Your task to perform on an android device: Open Youtube and go to "Your channel" Image 0: 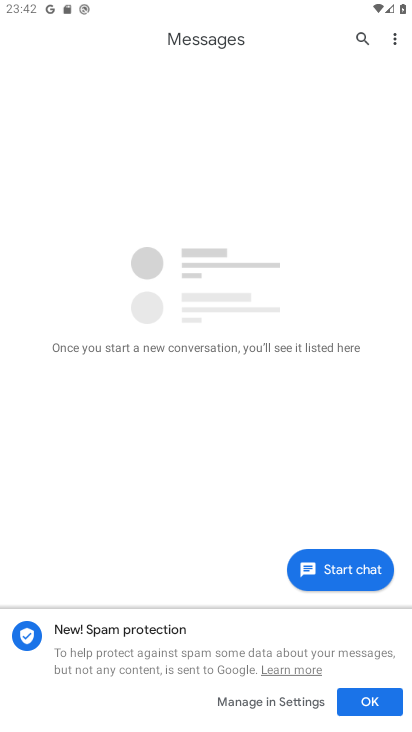
Step 0: press home button
Your task to perform on an android device: Open Youtube and go to "Your channel" Image 1: 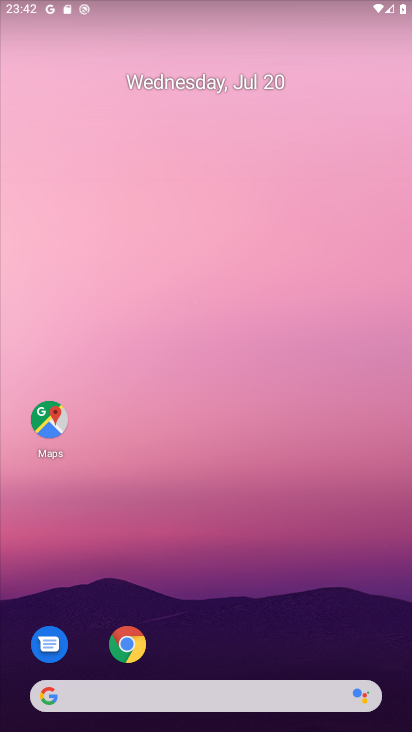
Step 1: drag from (194, 705) to (202, 201)
Your task to perform on an android device: Open Youtube and go to "Your channel" Image 2: 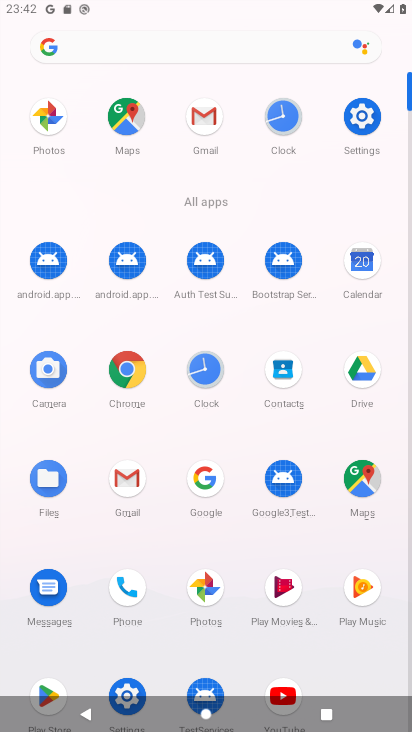
Step 2: click (282, 680)
Your task to perform on an android device: Open Youtube and go to "Your channel" Image 3: 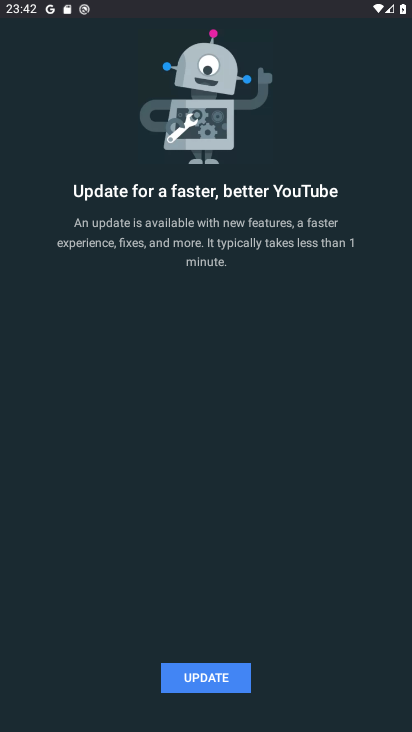
Step 3: click (239, 672)
Your task to perform on an android device: Open Youtube and go to "Your channel" Image 4: 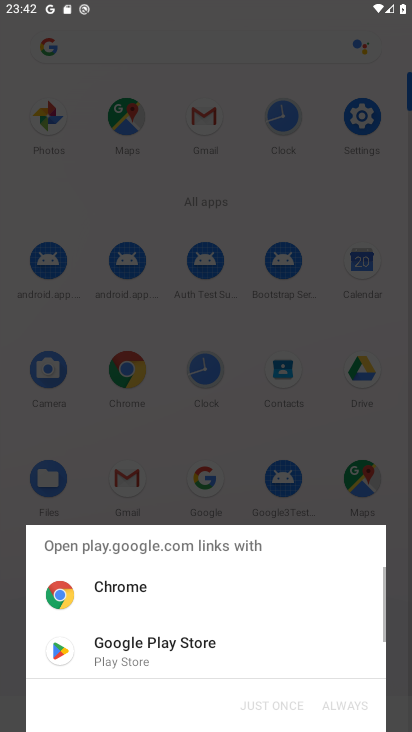
Step 4: click (213, 638)
Your task to perform on an android device: Open Youtube and go to "Your channel" Image 5: 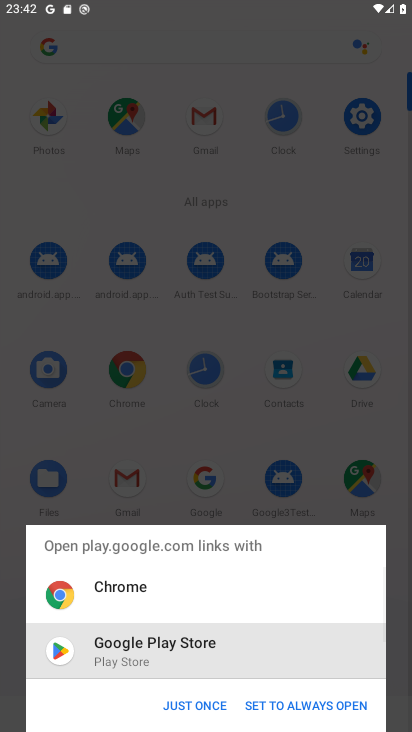
Step 5: click (182, 704)
Your task to perform on an android device: Open Youtube and go to "Your channel" Image 6: 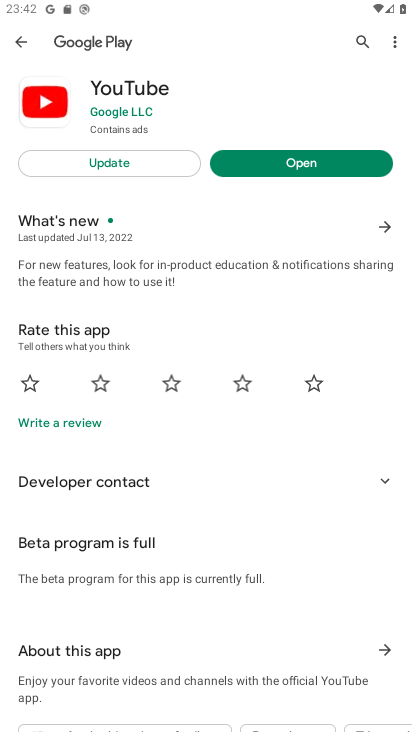
Step 6: click (162, 169)
Your task to perform on an android device: Open Youtube and go to "Your channel" Image 7: 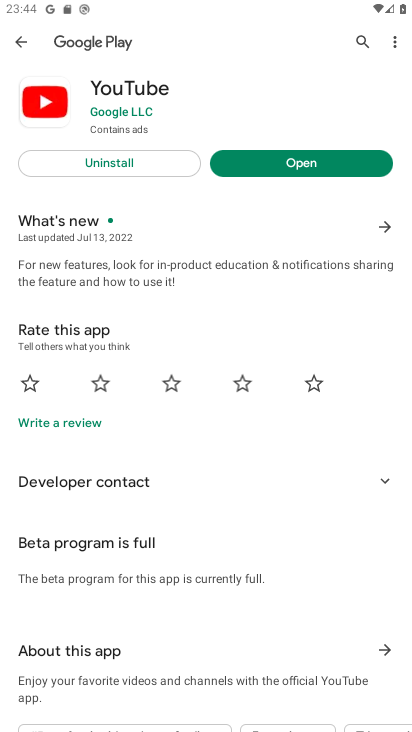
Step 7: click (261, 166)
Your task to perform on an android device: Open Youtube and go to "Your channel" Image 8: 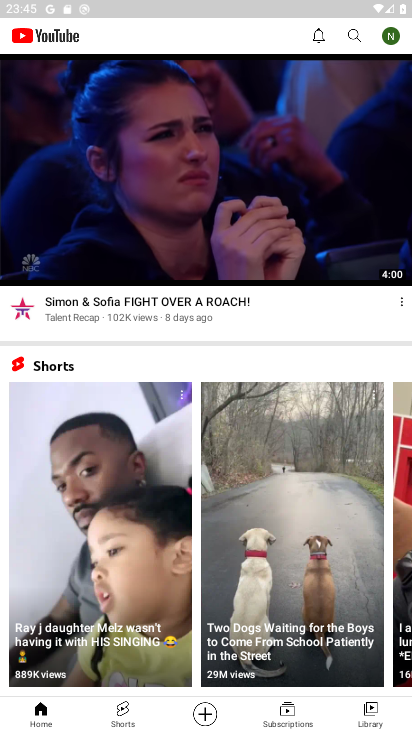
Step 8: click (397, 34)
Your task to perform on an android device: Open Youtube and go to "Your channel" Image 9: 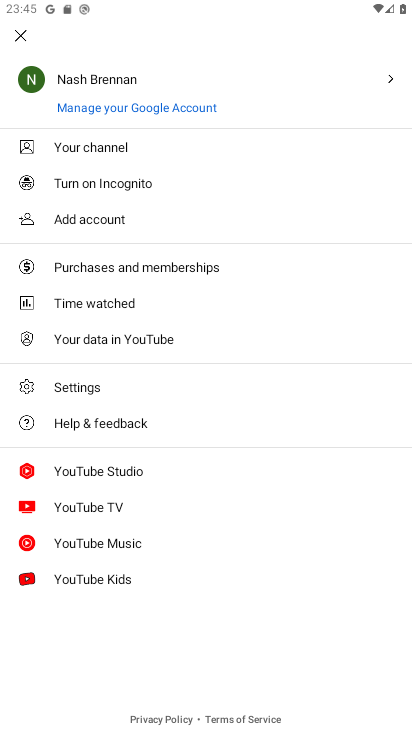
Step 9: click (143, 138)
Your task to perform on an android device: Open Youtube and go to "Your channel" Image 10: 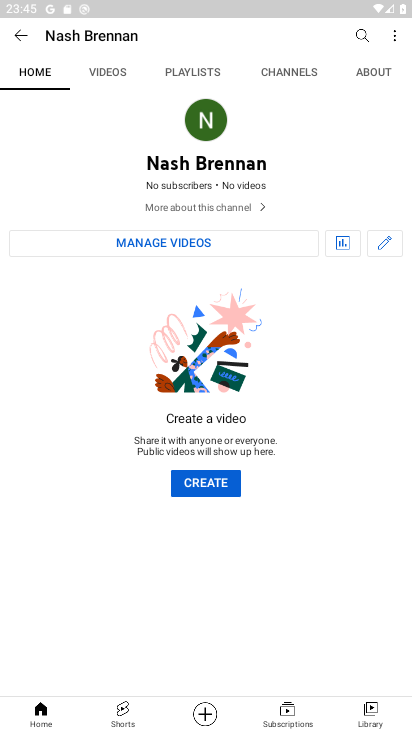
Step 10: task complete